Your task to perform on an android device: see tabs open on other devices in the chrome app Image 0: 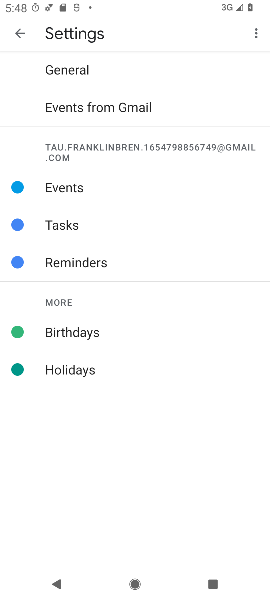
Step 0: press home button
Your task to perform on an android device: see tabs open on other devices in the chrome app Image 1: 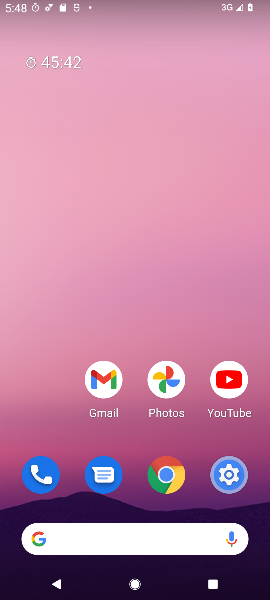
Step 1: drag from (53, 427) to (63, 277)
Your task to perform on an android device: see tabs open on other devices in the chrome app Image 2: 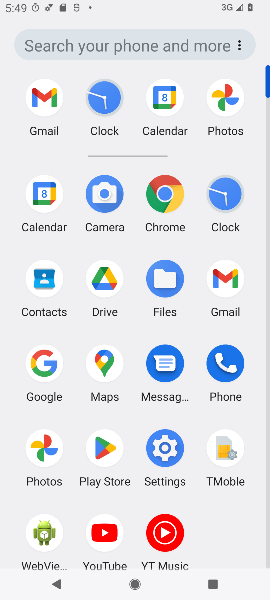
Step 2: click (170, 200)
Your task to perform on an android device: see tabs open on other devices in the chrome app Image 3: 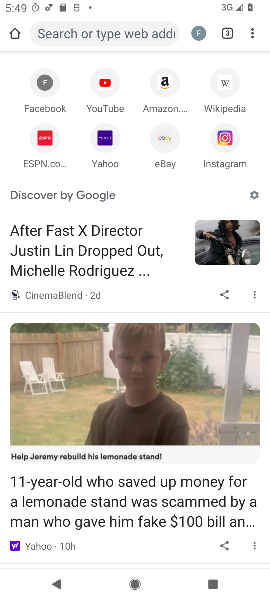
Step 3: click (252, 33)
Your task to perform on an android device: see tabs open on other devices in the chrome app Image 4: 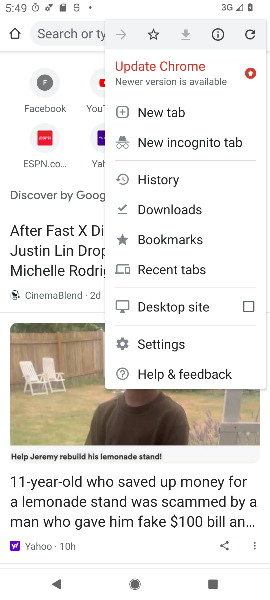
Step 4: click (200, 270)
Your task to perform on an android device: see tabs open on other devices in the chrome app Image 5: 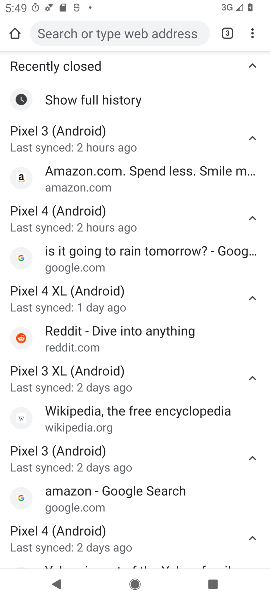
Step 5: click (228, 34)
Your task to perform on an android device: see tabs open on other devices in the chrome app Image 6: 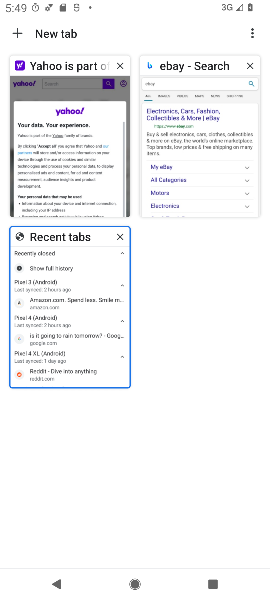
Step 6: task complete